Your task to perform on an android device: turn on the 24-hour format for clock Image 0: 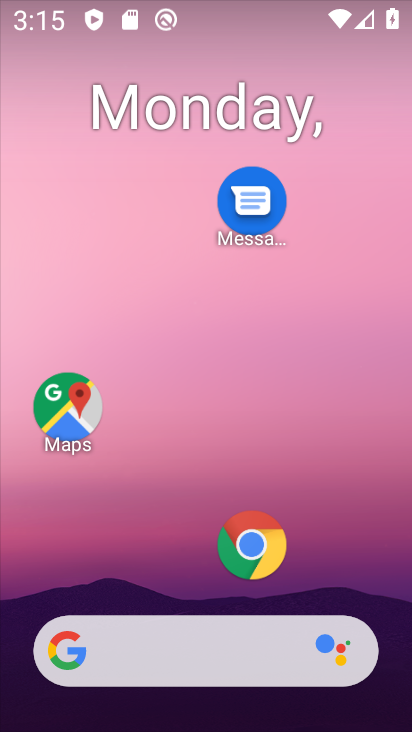
Step 0: drag from (146, 544) to (228, 136)
Your task to perform on an android device: turn on the 24-hour format for clock Image 1: 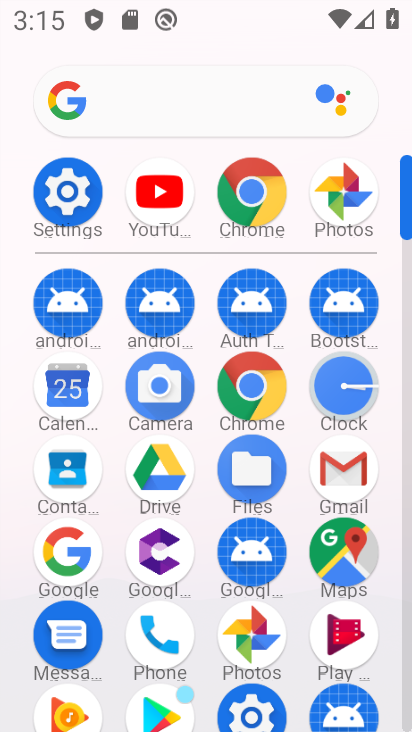
Step 1: click (338, 405)
Your task to perform on an android device: turn on the 24-hour format for clock Image 2: 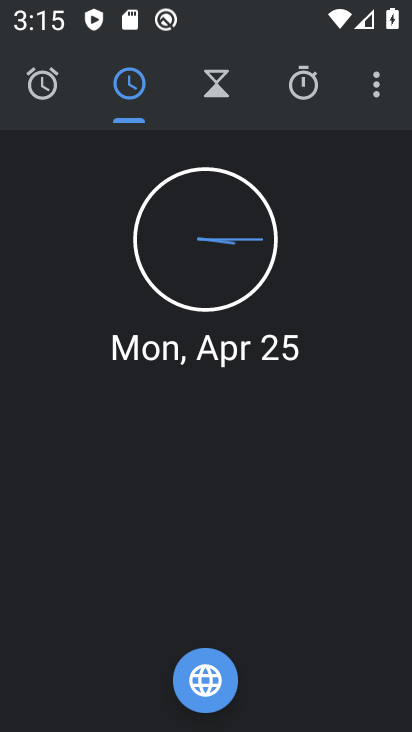
Step 2: drag from (378, 74) to (351, 151)
Your task to perform on an android device: turn on the 24-hour format for clock Image 3: 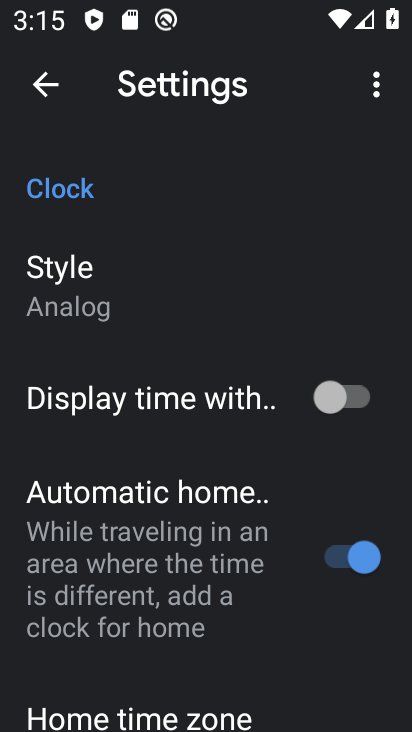
Step 3: drag from (184, 670) to (255, 233)
Your task to perform on an android device: turn on the 24-hour format for clock Image 4: 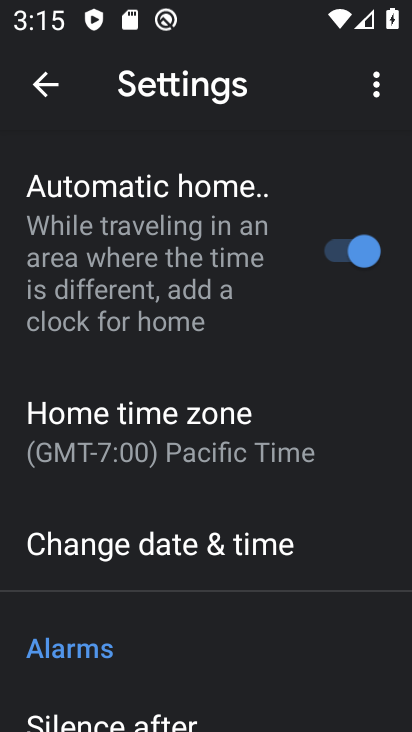
Step 4: click (164, 539)
Your task to perform on an android device: turn on the 24-hour format for clock Image 5: 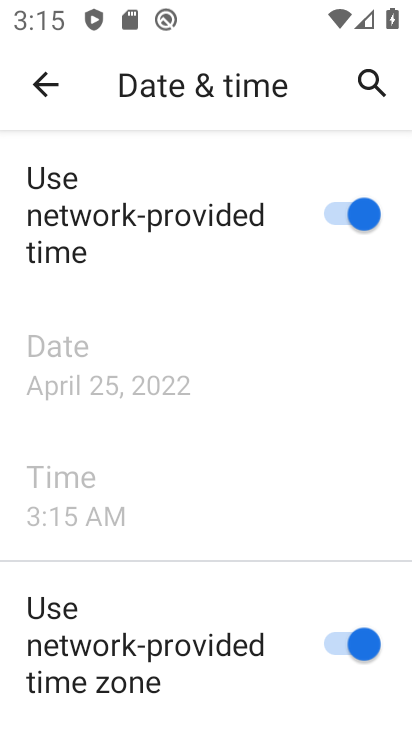
Step 5: drag from (149, 688) to (198, 294)
Your task to perform on an android device: turn on the 24-hour format for clock Image 6: 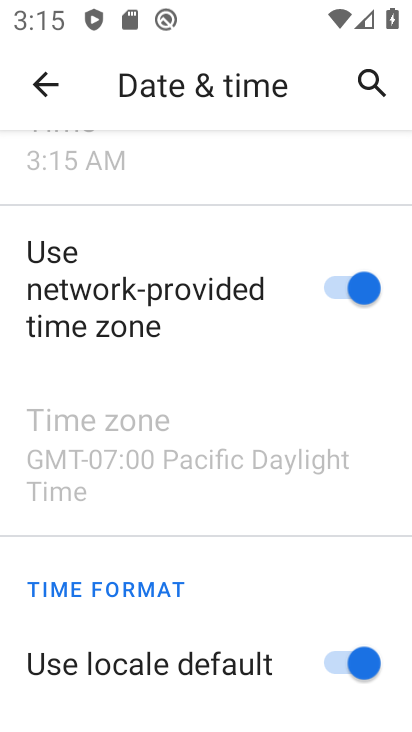
Step 6: drag from (147, 644) to (248, 180)
Your task to perform on an android device: turn on the 24-hour format for clock Image 7: 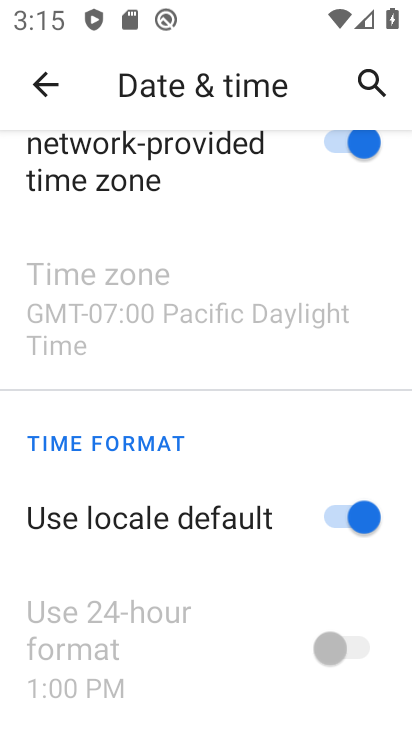
Step 7: click (343, 510)
Your task to perform on an android device: turn on the 24-hour format for clock Image 8: 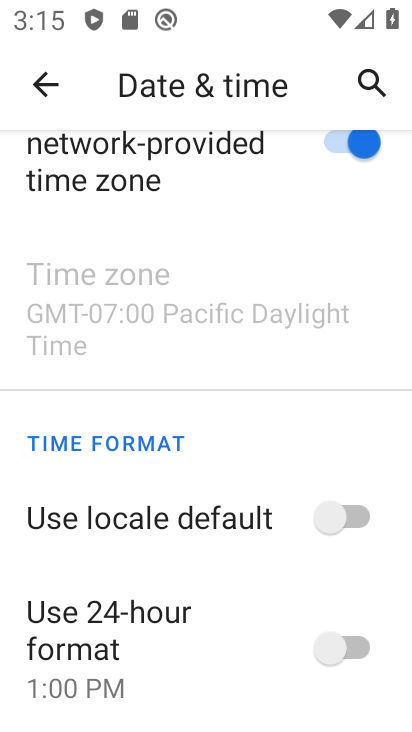
Step 8: click (344, 647)
Your task to perform on an android device: turn on the 24-hour format for clock Image 9: 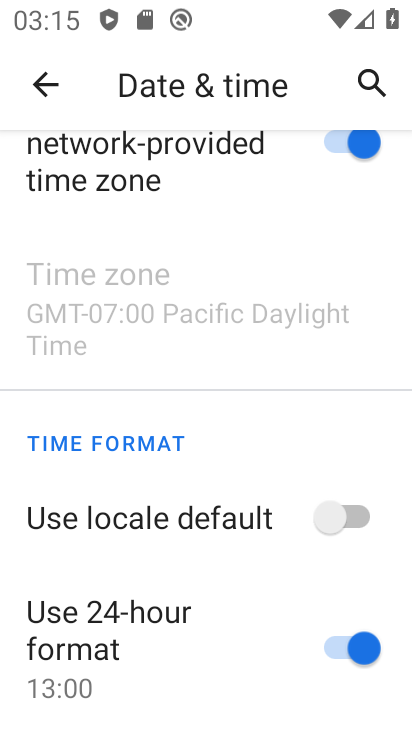
Step 9: task complete